Your task to perform on an android device: clear all cookies in the chrome app Image 0: 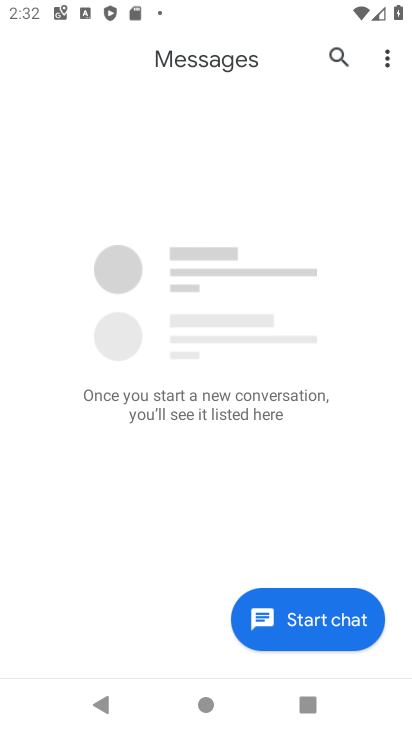
Step 0: press home button
Your task to perform on an android device: clear all cookies in the chrome app Image 1: 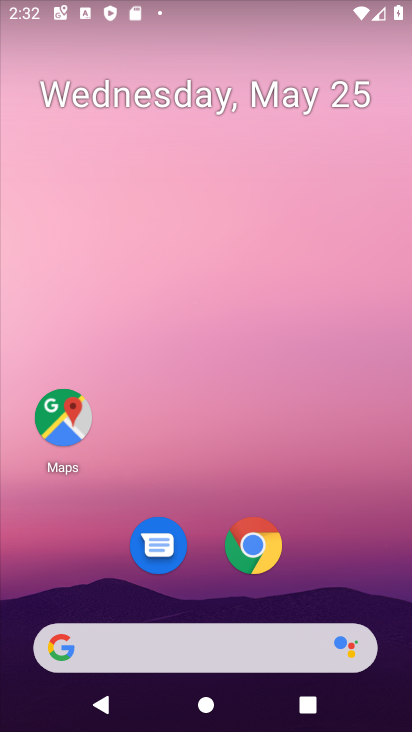
Step 1: click (302, 542)
Your task to perform on an android device: clear all cookies in the chrome app Image 2: 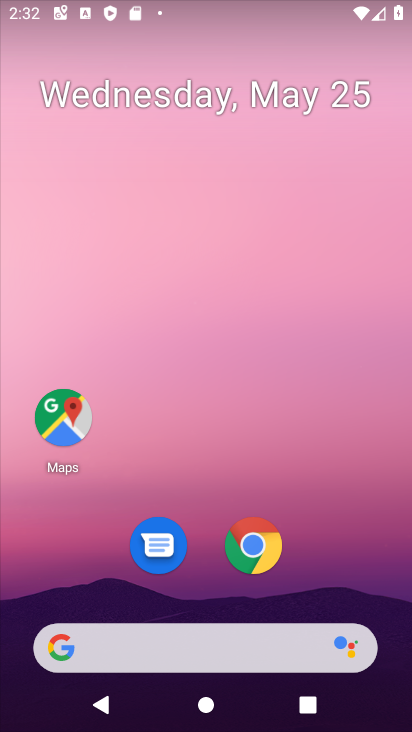
Step 2: click (279, 544)
Your task to perform on an android device: clear all cookies in the chrome app Image 3: 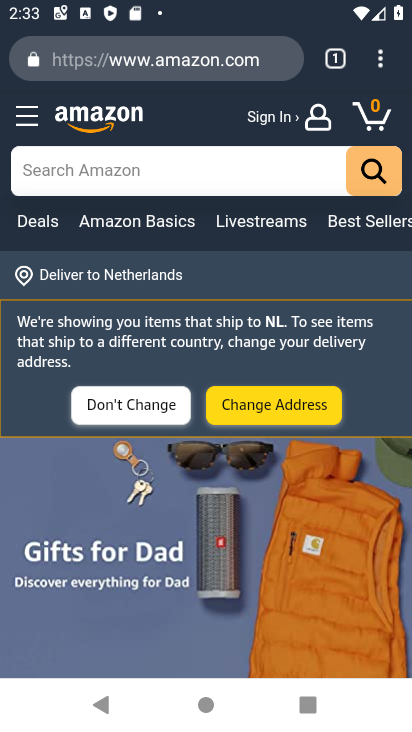
Step 3: click (385, 49)
Your task to perform on an android device: clear all cookies in the chrome app Image 4: 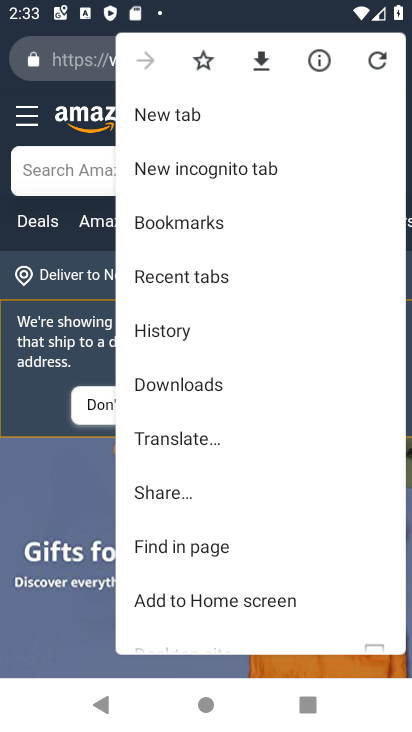
Step 4: drag from (212, 575) to (221, 327)
Your task to perform on an android device: clear all cookies in the chrome app Image 5: 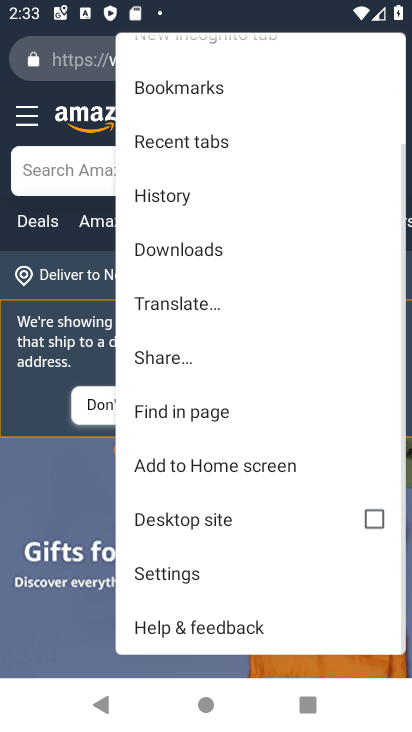
Step 5: click (222, 561)
Your task to perform on an android device: clear all cookies in the chrome app Image 6: 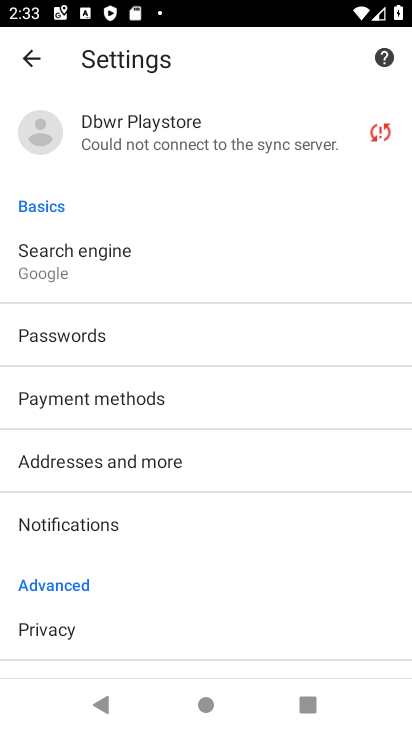
Step 6: drag from (236, 585) to (258, 288)
Your task to perform on an android device: clear all cookies in the chrome app Image 7: 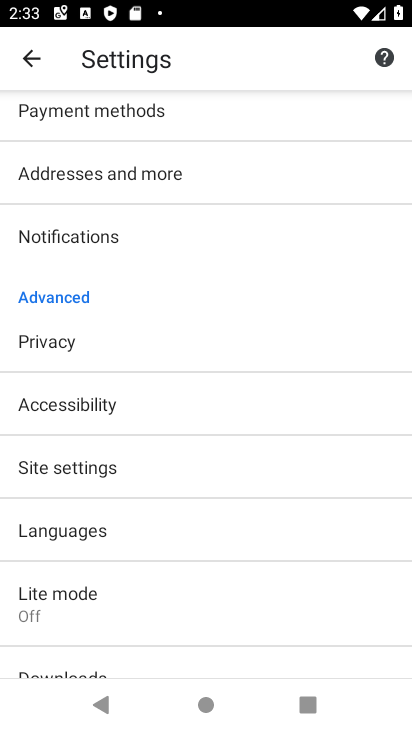
Step 7: click (247, 463)
Your task to perform on an android device: clear all cookies in the chrome app Image 8: 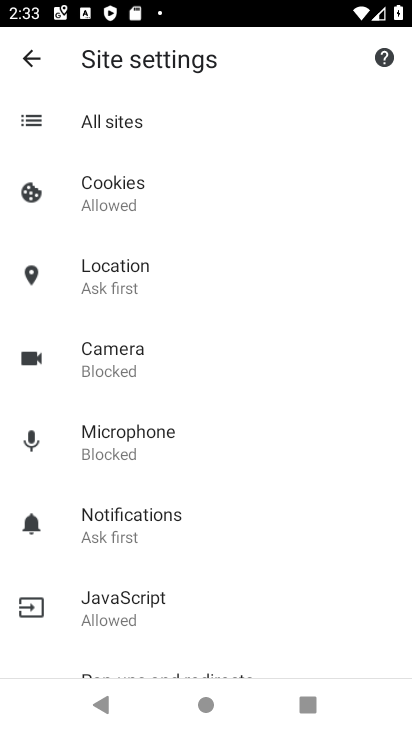
Step 8: task complete